Your task to perform on an android device: Go to Maps Image 0: 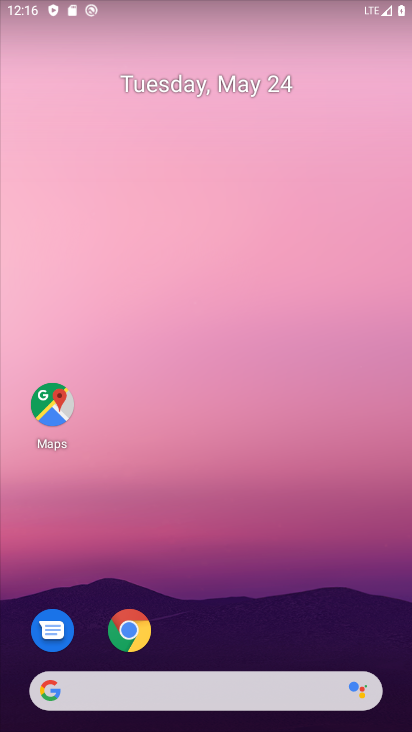
Step 0: click (37, 408)
Your task to perform on an android device: Go to Maps Image 1: 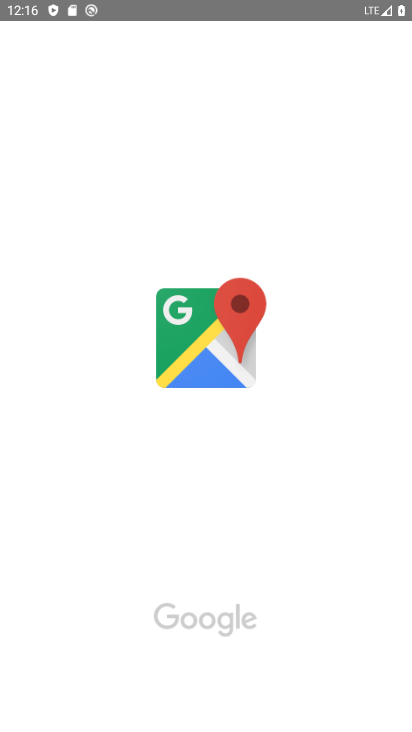
Step 1: task complete